Your task to perform on an android device: Open settings on Google Maps Image 0: 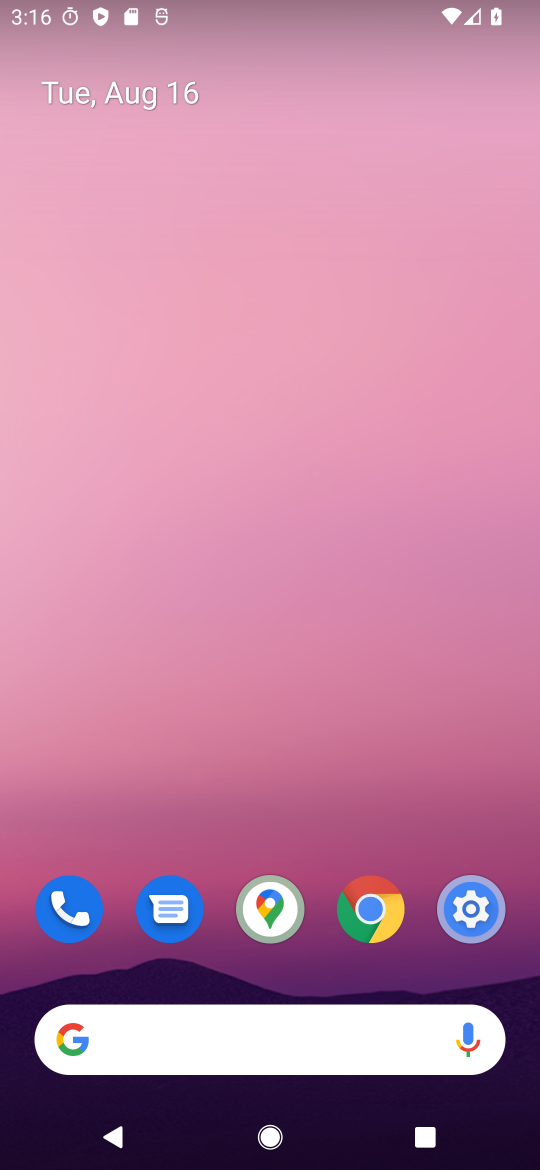
Step 0: click (263, 906)
Your task to perform on an android device: Open settings on Google Maps Image 1: 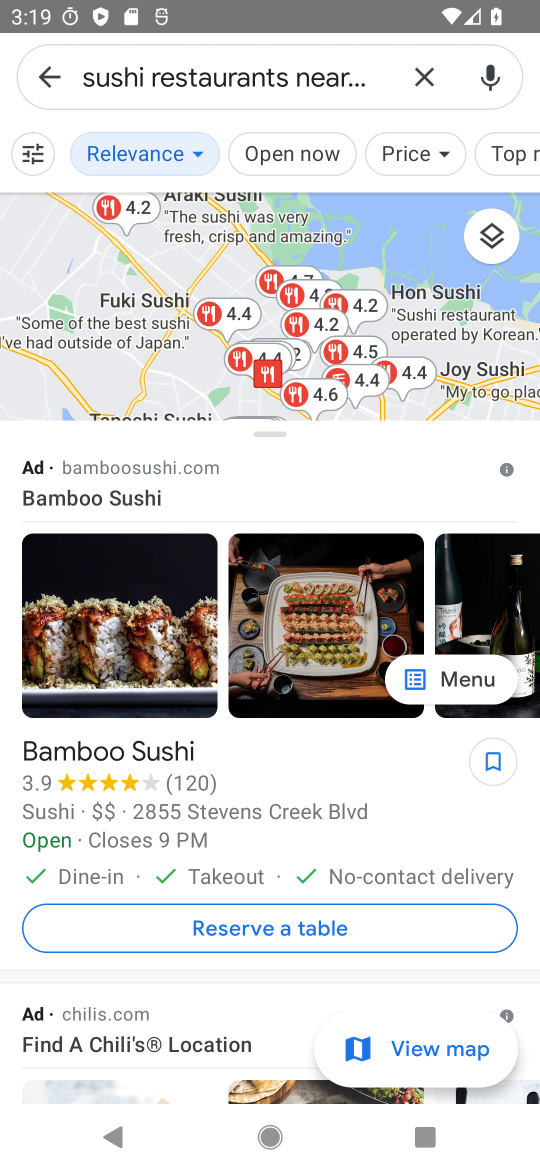
Step 1: click (45, 82)
Your task to perform on an android device: Open settings on Google Maps Image 2: 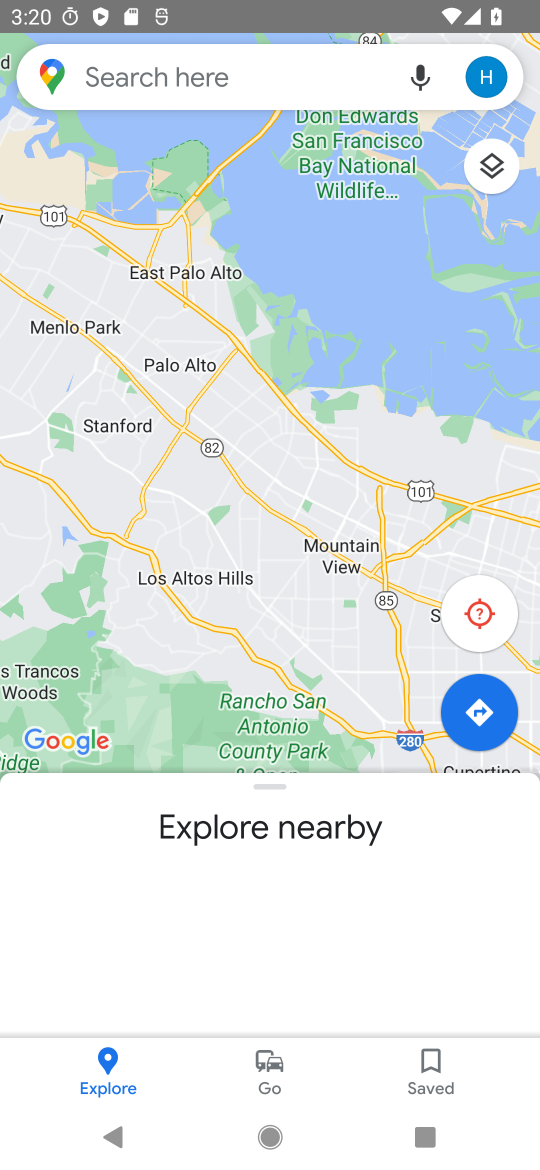
Step 2: click (483, 81)
Your task to perform on an android device: Open settings on Google Maps Image 3: 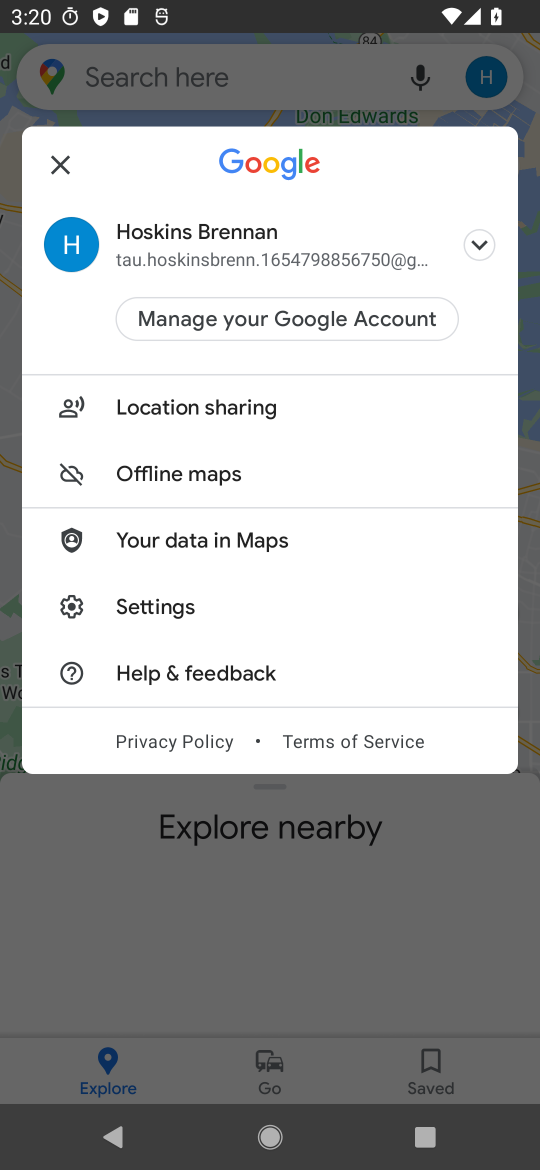
Step 3: click (136, 602)
Your task to perform on an android device: Open settings on Google Maps Image 4: 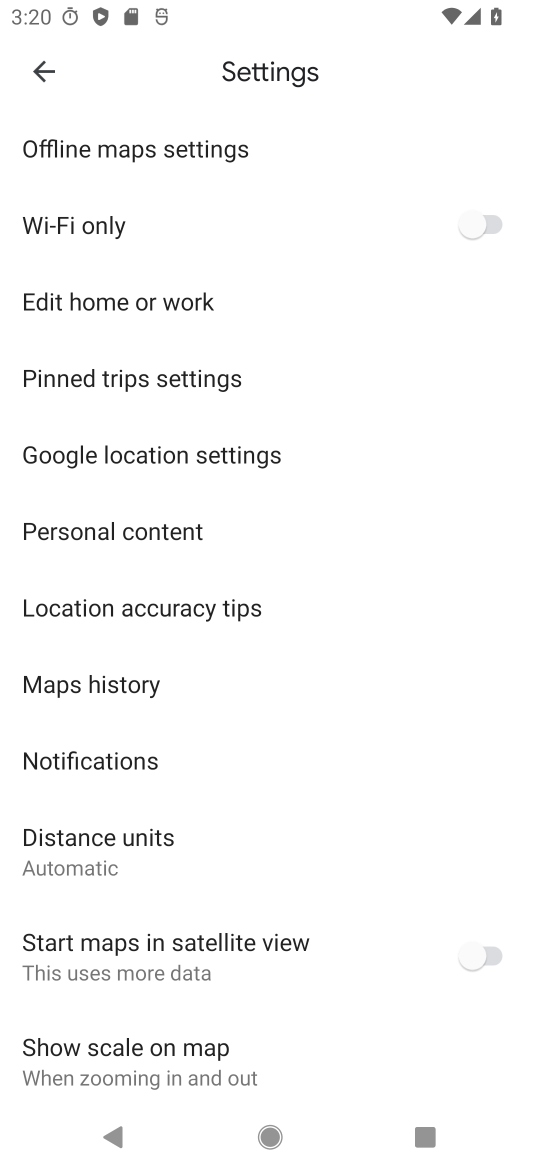
Step 4: task complete